Your task to perform on an android device: Open calendar and show me the fourth week of next month Image 0: 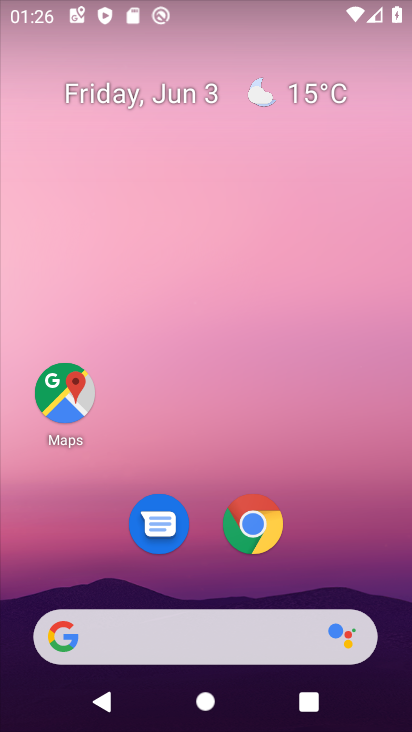
Step 0: drag from (228, 460) to (277, 1)
Your task to perform on an android device: Open calendar and show me the fourth week of next month Image 1: 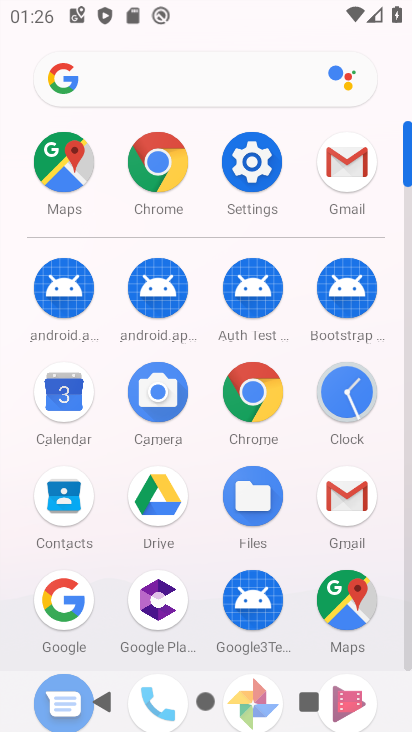
Step 1: click (63, 412)
Your task to perform on an android device: Open calendar and show me the fourth week of next month Image 2: 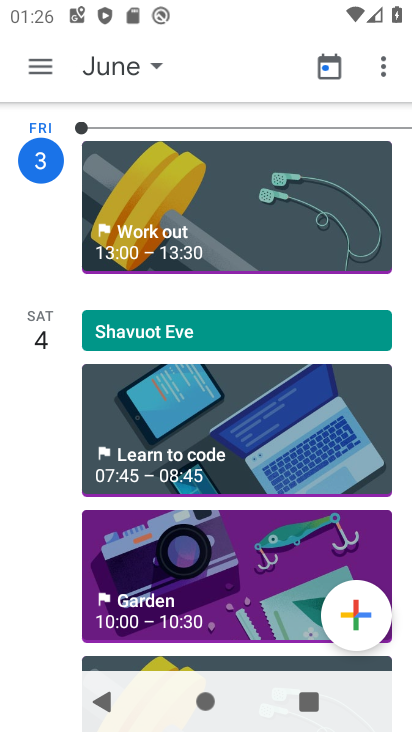
Step 2: click (44, 61)
Your task to perform on an android device: Open calendar and show me the fourth week of next month Image 3: 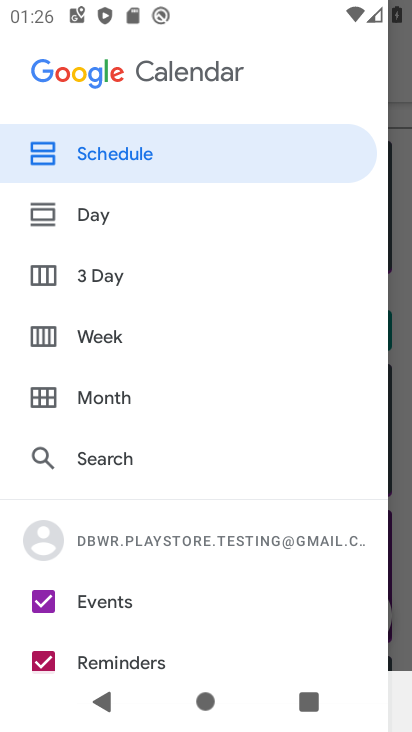
Step 3: click (52, 390)
Your task to perform on an android device: Open calendar and show me the fourth week of next month Image 4: 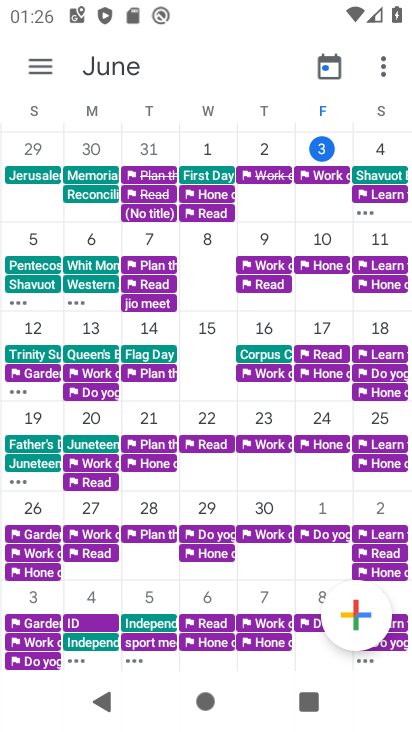
Step 4: drag from (382, 223) to (6, 393)
Your task to perform on an android device: Open calendar and show me the fourth week of next month Image 5: 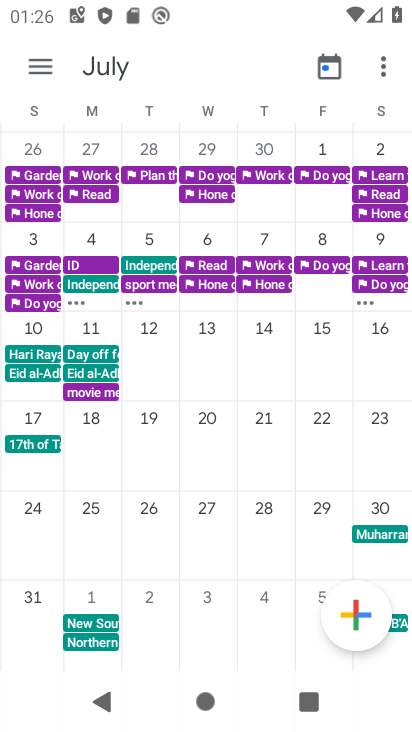
Step 5: click (28, 501)
Your task to perform on an android device: Open calendar and show me the fourth week of next month Image 6: 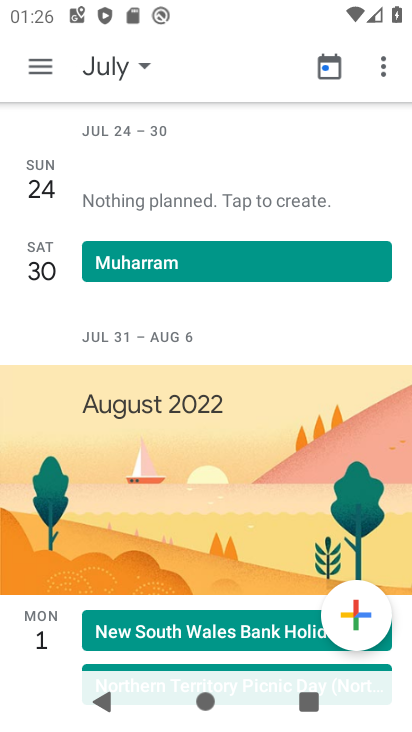
Step 6: click (37, 65)
Your task to perform on an android device: Open calendar and show me the fourth week of next month Image 7: 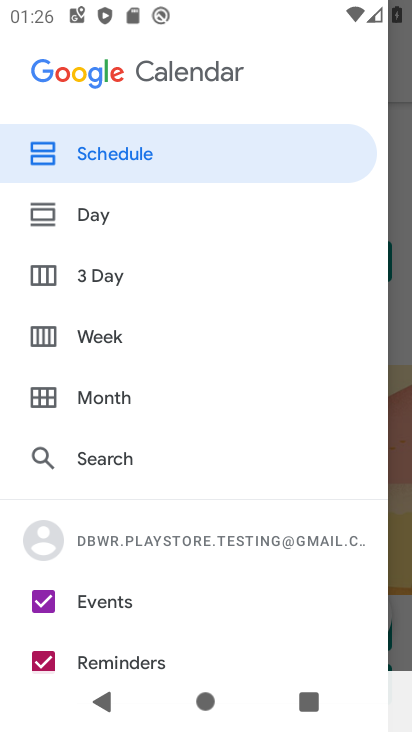
Step 7: click (75, 328)
Your task to perform on an android device: Open calendar and show me the fourth week of next month Image 8: 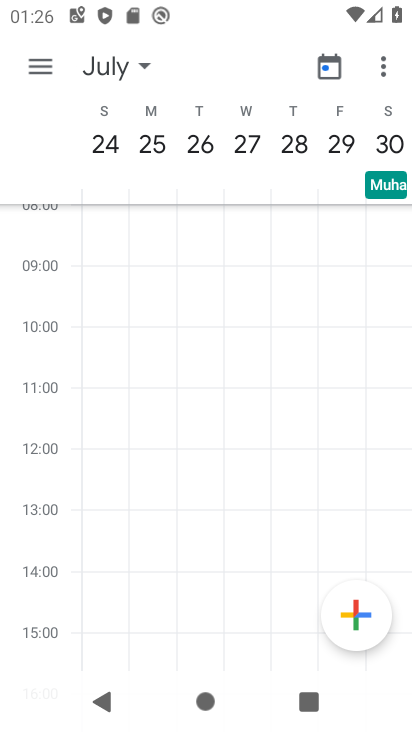
Step 8: task complete